Your task to perform on an android device: Search for Mexican restaurants on Maps Image 0: 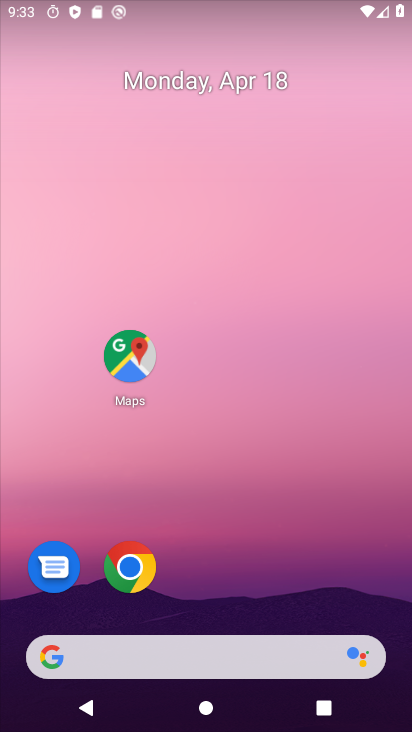
Step 0: click (251, 430)
Your task to perform on an android device: Search for Mexican restaurants on Maps Image 1: 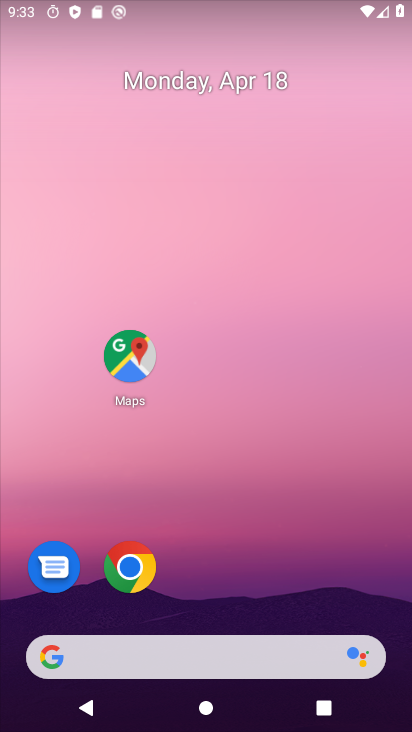
Step 1: drag from (290, 675) to (360, 95)
Your task to perform on an android device: Search for Mexican restaurants on Maps Image 2: 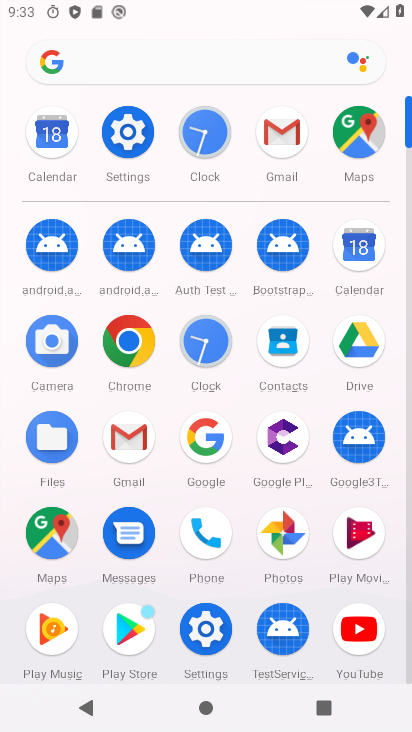
Step 2: click (369, 143)
Your task to perform on an android device: Search for Mexican restaurants on Maps Image 3: 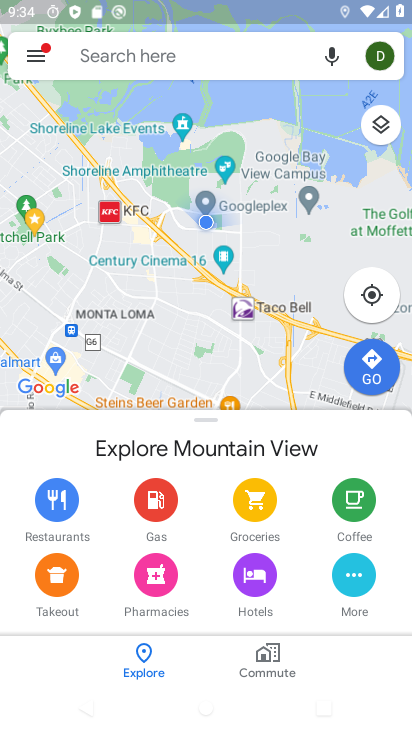
Step 3: click (158, 59)
Your task to perform on an android device: Search for Mexican restaurants on Maps Image 4: 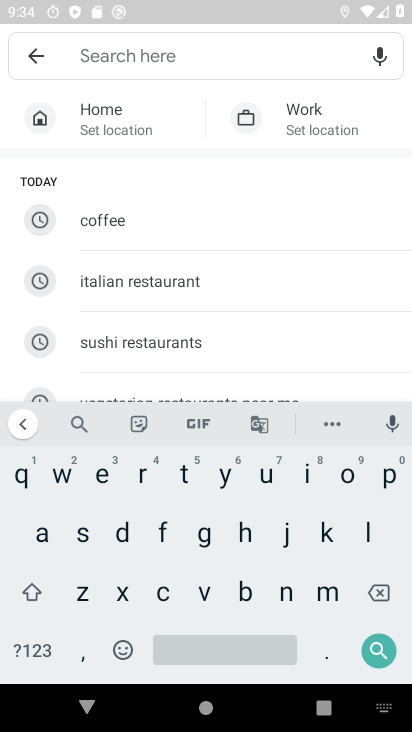
Step 4: click (316, 595)
Your task to perform on an android device: Search for Mexican restaurants on Maps Image 5: 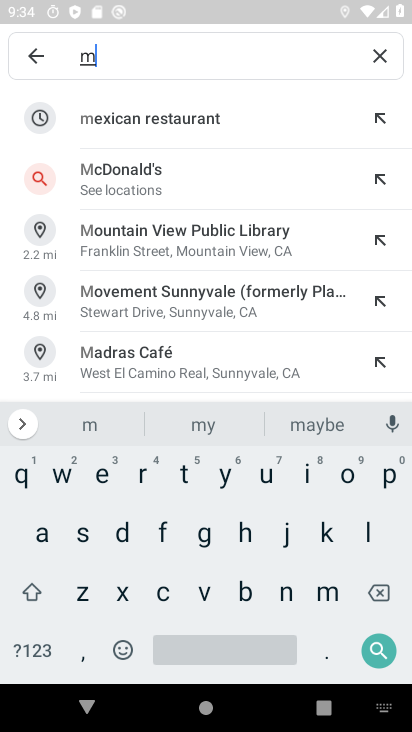
Step 5: click (222, 114)
Your task to perform on an android device: Search for Mexican restaurants on Maps Image 6: 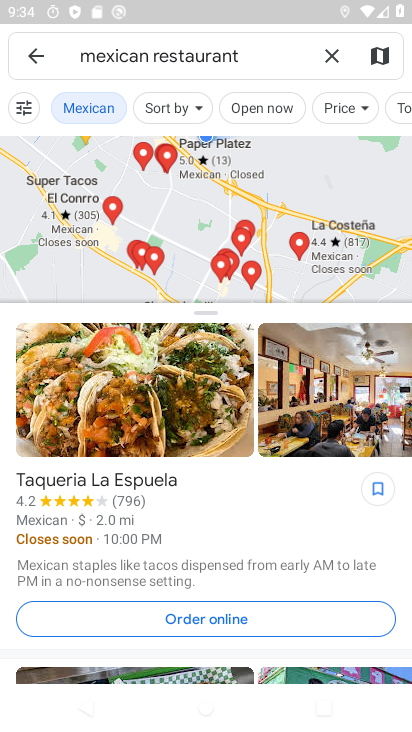
Step 6: task complete